Your task to perform on an android device: Search for "panasonic triple a" on newegg, select the first entry, add it to the cart, then select checkout. Image 0: 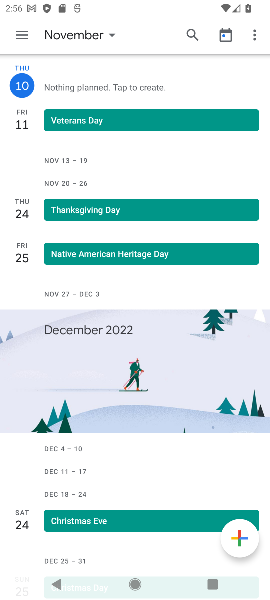
Step 0: press home button
Your task to perform on an android device: Search for "panasonic triple a" on newegg, select the first entry, add it to the cart, then select checkout. Image 1: 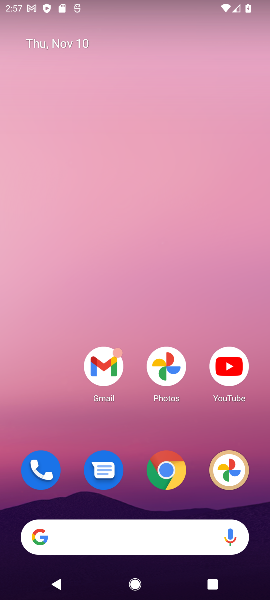
Step 1: click (167, 472)
Your task to perform on an android device: Search for "panasonic triple a" on newegg, select the first entry, add it to the cart, then select checkout. Image 2: 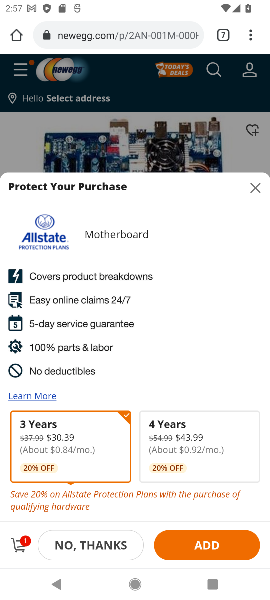
Step 2: click (221, 38)
Your task to perform on an android device: Search for "panasonic triple a" on newegg, select the first entry, add it to the cart, then select checkout. Image 3: 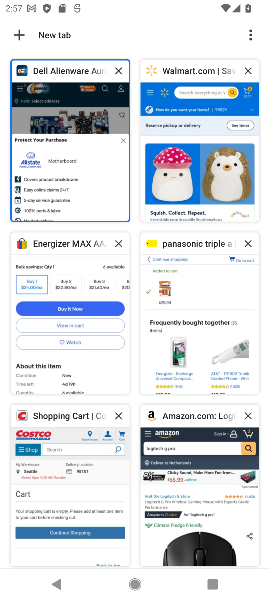
Step 3: click (90, 156)
Your task to perform on an android device: Search for "panasonic triple a" on newegg, select the first entry, add it to the cart, then select checkout. Image 4: 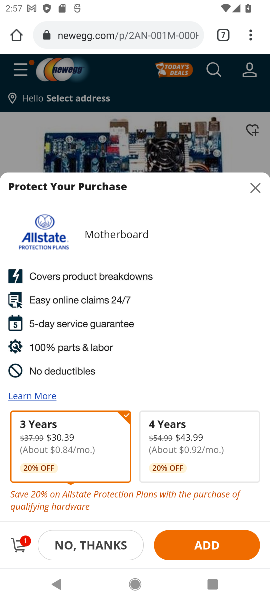
Step 4: click (258, 191)
Your task to perform on an android device: Search for "panasonic triple a" on newegg, select the first entry, add it to the cart, then select checkout. Image 5: 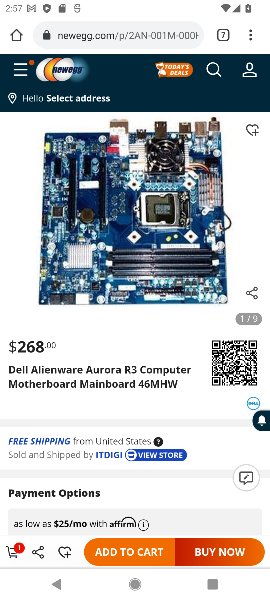
Step 5: click (213, 67)
Your task to perform on an android device: Search for "panasonic triple a" on newegg, select the first entry, add it to the cart, then select checkout. Image 6: 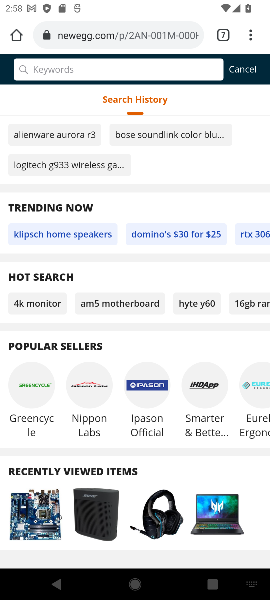
Step 6: type "panasonic triple a"
Your task to perform on an android device: Search for "panasonic triple a" on newegg, select the first entry, add it to the cart, then select checkout. Image 7: 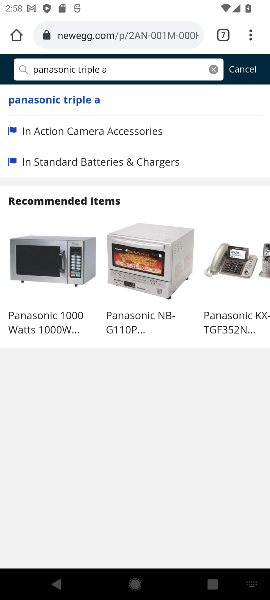
Step 7: click (77, 95)
Your task to perform on an android device: Search for "panasonic triple a" on newegg, select the first entry, add it to the cart, then select checkout. Image 8: 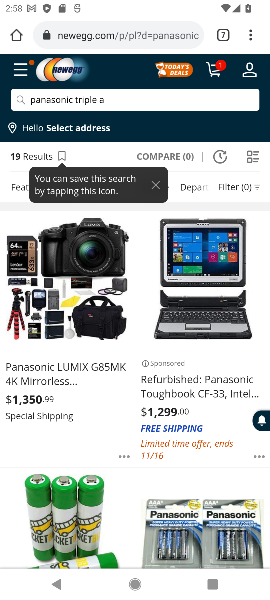
Step 8: click (173, 526)
Your task to perform on an android device: Search for "panasonic triple a" on newegg, select the first entry, add it to the cart, then select checkout. Image 9: 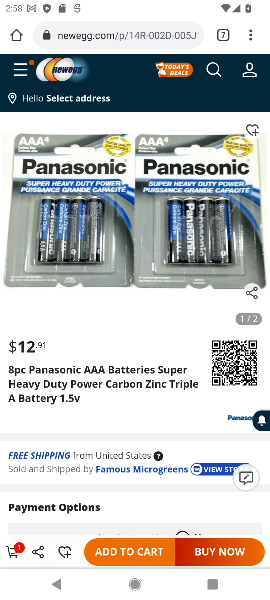
Step 9: click (132, 550)
Your task to perform on an android device: Search for "panasonic triple a" on newegg, select the first entry, add it to the cart, then select checkout. Image 10: 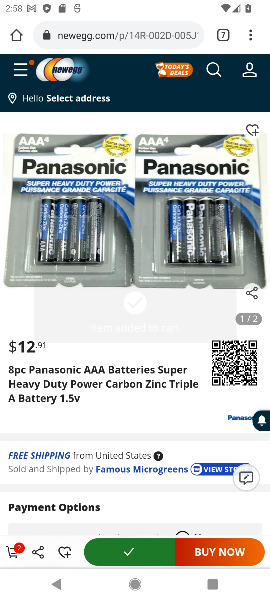
Step 10: click (15, 549)
Your task to perform on an android device: Search for "panasonic triple a" on newegg, select the first entry, add it to the cart, then select checkout. Image 11: 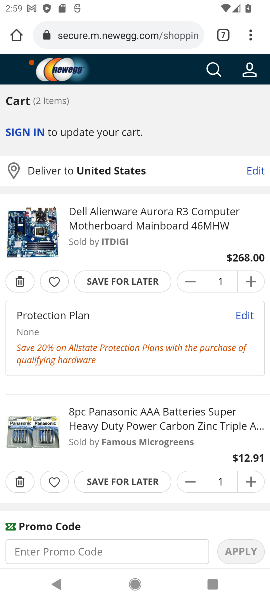
Step 11: click (127, 507)
Your task to perform on an android device: Search for "panasonic triple a" on newegg, select the first entry, add it to the cart, then select checkout. Image 12: 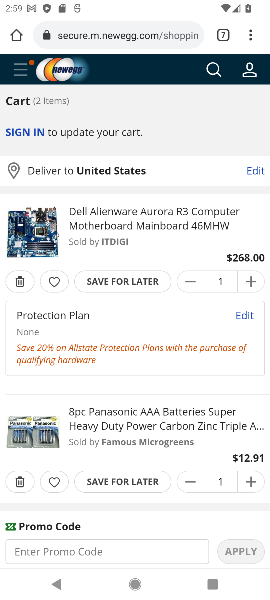
Step 12: click (128, 518)
Your task to perform on an android device: Search for "panasonic triple a" on newegg, select the first entry, add it to the cart, then select checkout. Image 13: 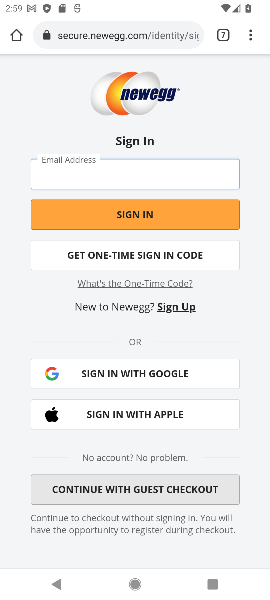
Step 13: task complete